Your task to perform on an android device: change text size in settings app Image 0: 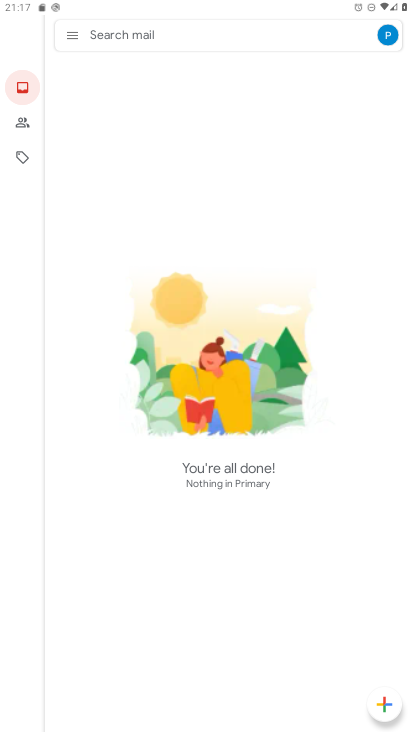
Step 0: press home button
Your task to perform on an android device: change text size in settings app Image 1: 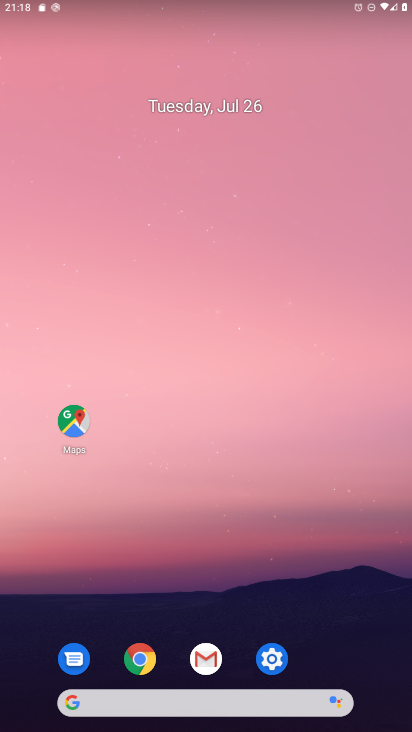
Step 1: drag from (235, 715) to (161, 159)
Your task to perform on an android device: change text size in settings app Image 2: 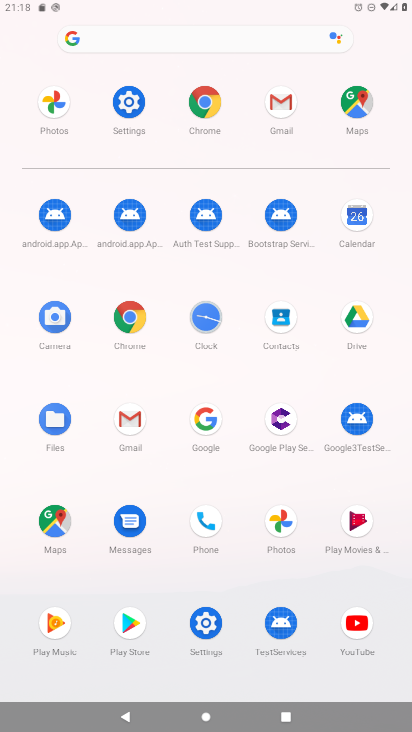
Step 2: click (118, 99)
Your task to perform on an android device: change text size in settings app Image 3: 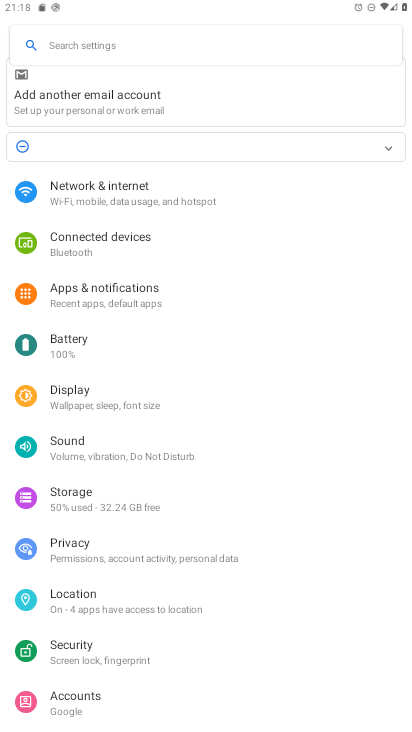
Step 3: click (112, 49)
Your task to perform on an android device: change text size in settings app Image 4: 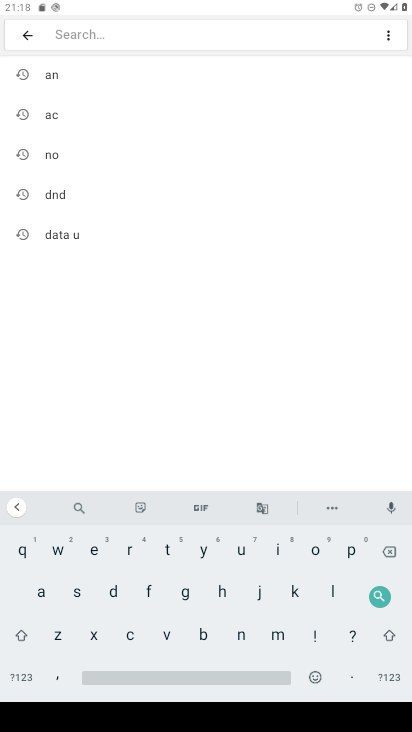
Step 4: click (71, 597)
Your task to perform on an android device: change text size in settings app Image 5: 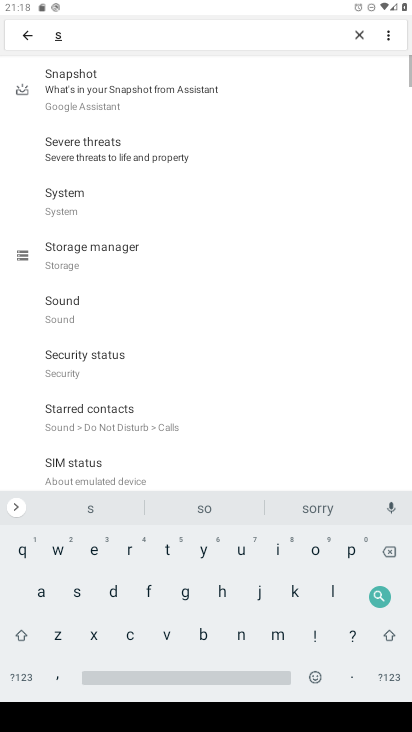
Step 5: click (274, 556)
Your task to perform on an android device: change text size in settings app Image 6: 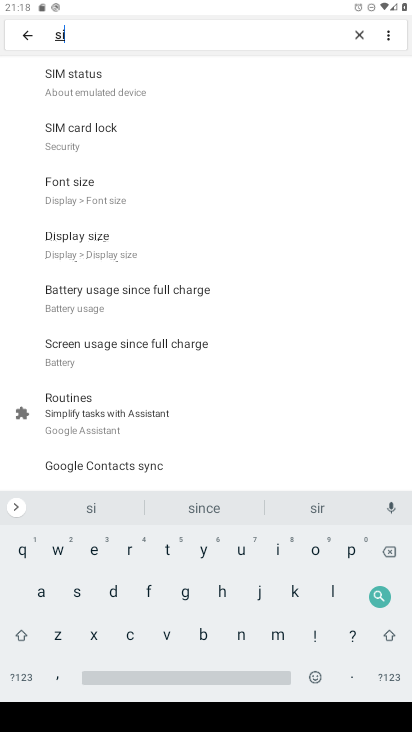
Step 6: click (57, 631)
Your task to perform on an android device: change text size in settings app Image 7: 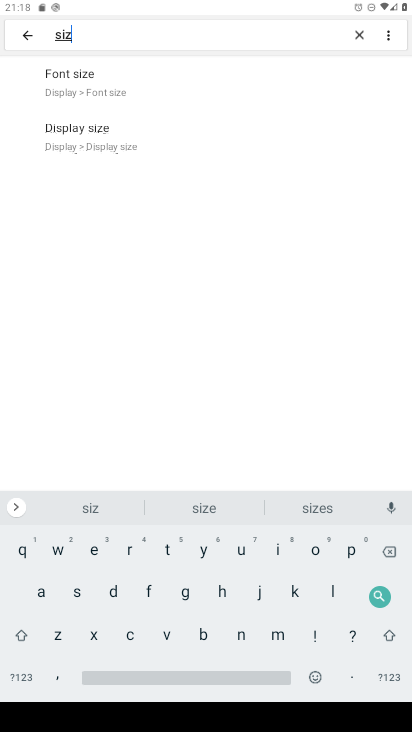
Step 7: click (95, 75)
Your task to perform on an android device: change text size in settings app Image 8: 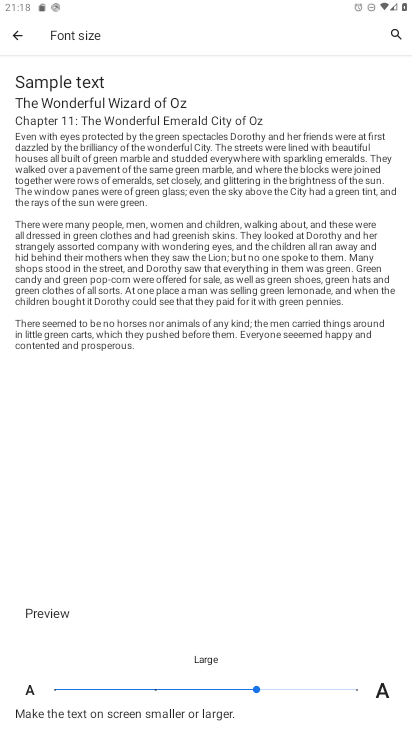
Step 8: task complete